Your task to perform on an android device: Search for seafood restaurants on Google Maps Image 0: 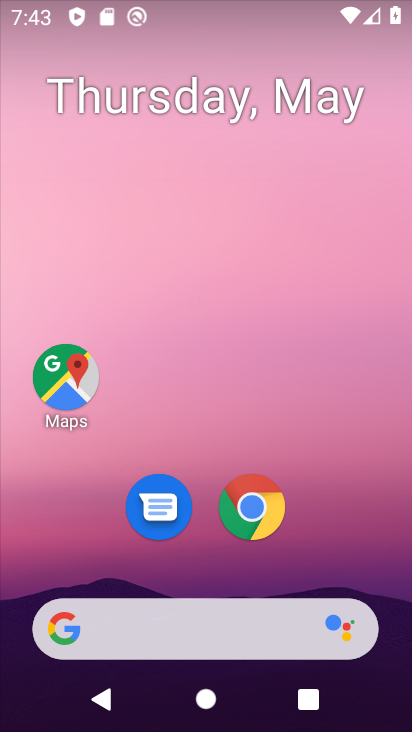
Step 0: drag from (266, 669) to (186, 214)
Your task to perform on an android device: Search for seafood restaurants on Google Maps Image 1: 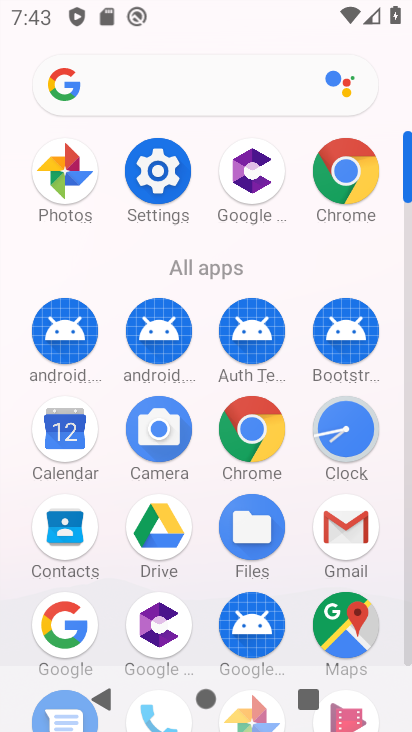
Step 1: click (336, 625)
Your task to perform on an android device: Search for seafood restaurants on Google Maps Image 2: 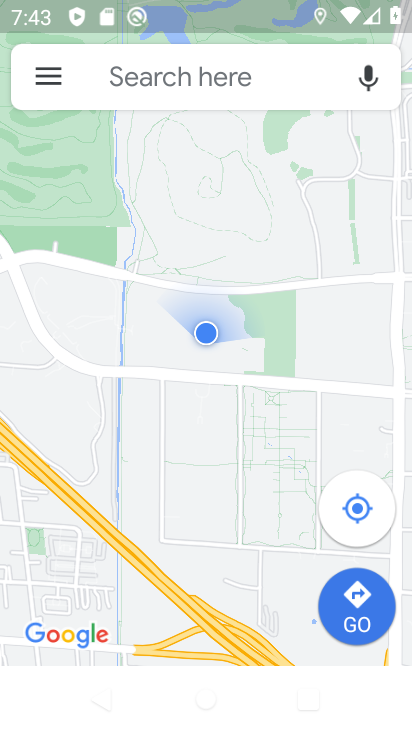
Step 2: click (154, 88)
Your task to perform on an android device: Search for seafood restaurants on Google Maps Image 3: 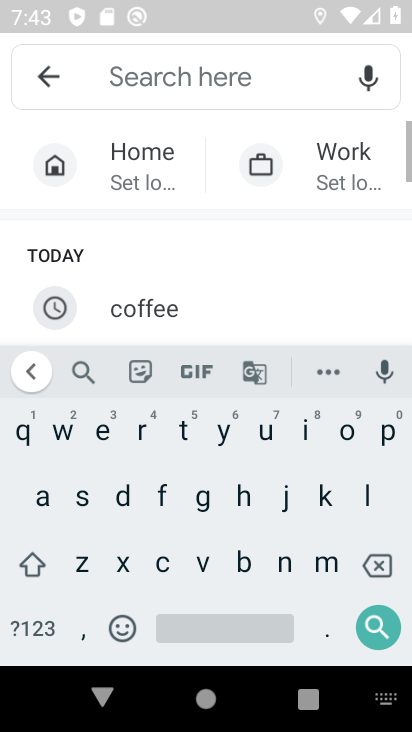
Step 3: click (82, 484)
Your task to perform on an android device: Search for seafood restaurants on Google Maps Image 4: 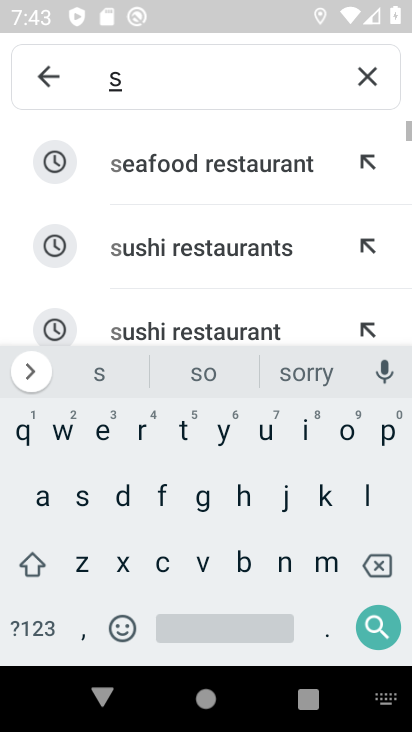
Step 4: click (193, 189)
Your task to perform on an android device: Search for seafood restaurants on Google Maps Image 5: 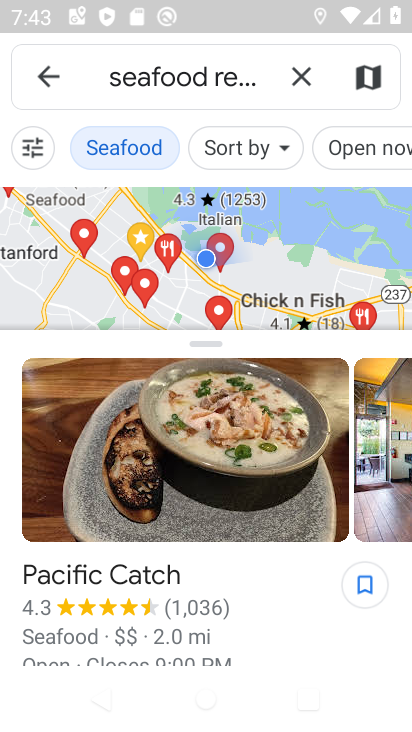
Step 5: click (102, 289)
Your task to perform on an android device: Search for seafood restaurants on Google Maps Image 6: 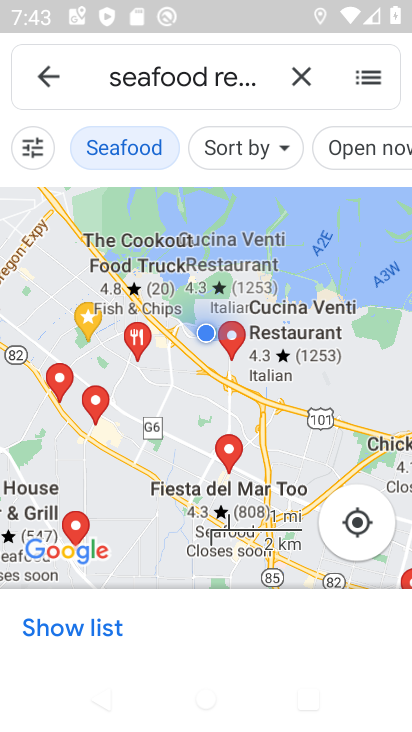
Step 6: task complete